Your task to perform on an android device: find which apps use the phone's location Image 0: 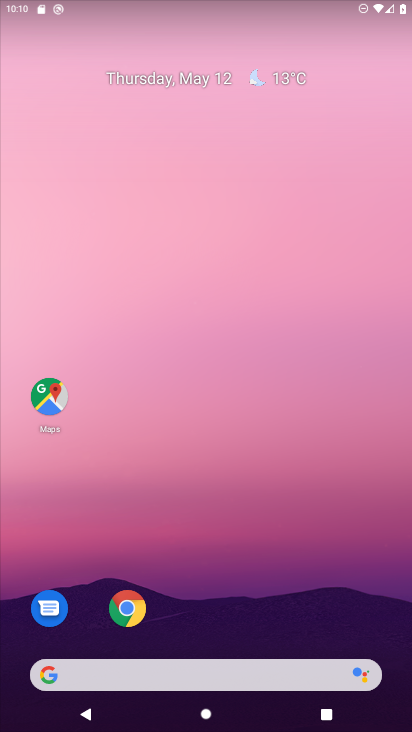
Step 0: drag from (210, 602) to (266, 93)
Your task to perform on an android device: find which apps use the phone's location Image 1: 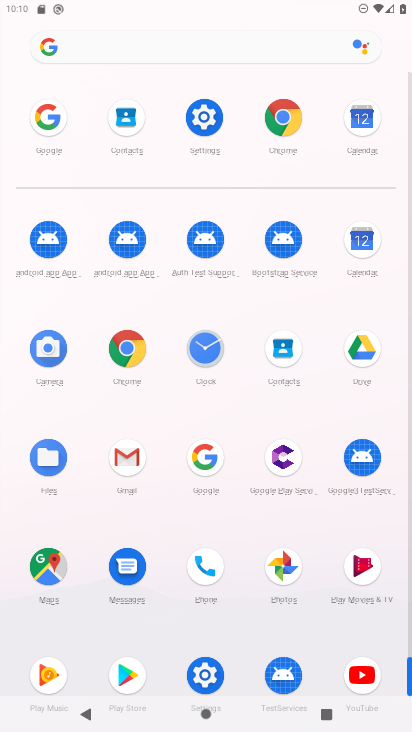
Step 1: click (207, 117)
Your task to perform on an android device: find which apps use the phone's location Image 2: 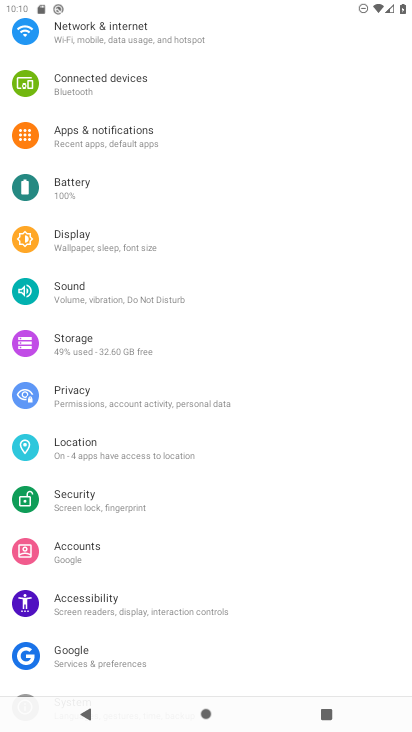
Step 2: click (128, 453)
Your task to perform on an android device: find which apps use the phone's location Image 3: 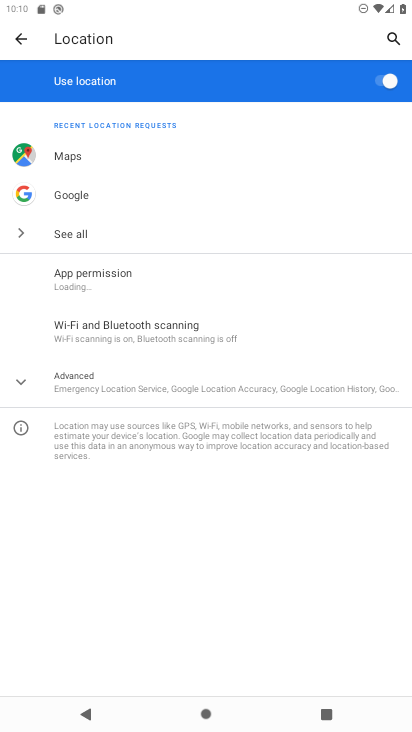
Step 3: click (105, 293)
Your task to perform on an android device: find which apps use the phone's location Image 4: 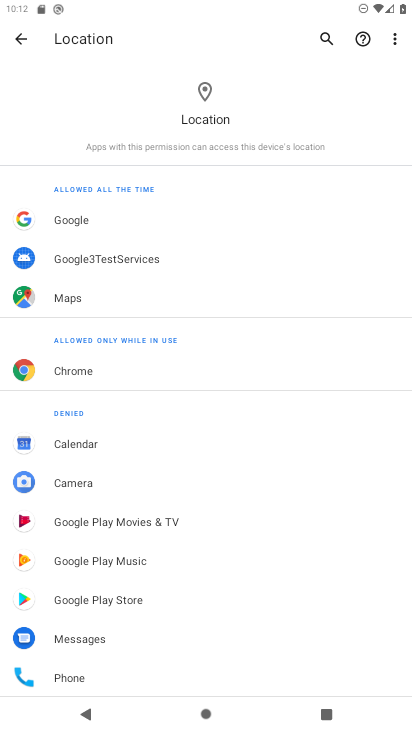
Step 4: task complete